Your task to perform on an android device: turn on translation in the chrome app Image 0: 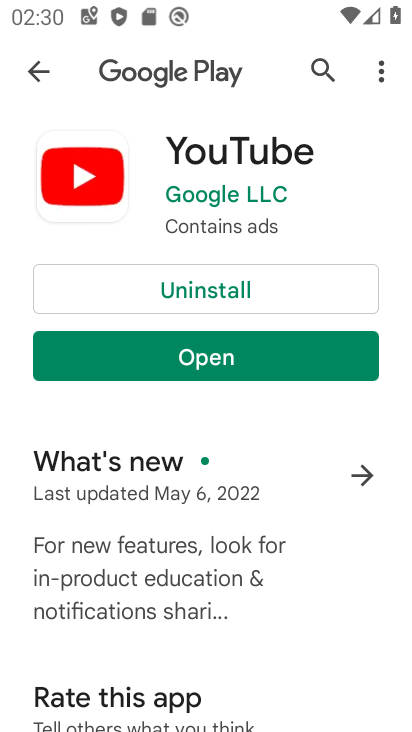
Step 0: press back button
Your task to perform on an android device: turn on translation in the chrome app Image 1: 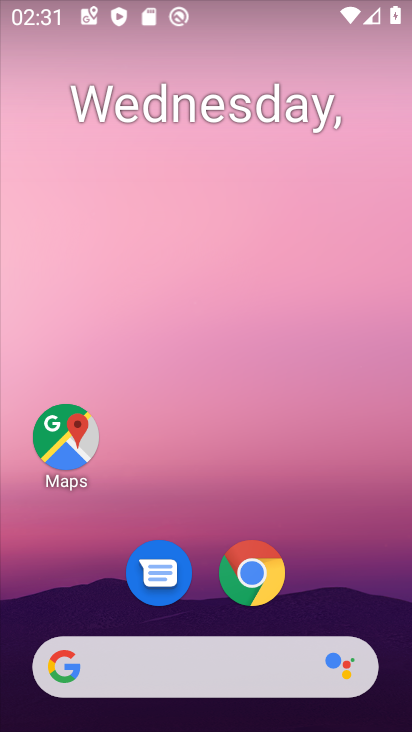
Step 1: click (249, 574)
Your task to perform on an android device: turn on translation in the chrome app Image 2: 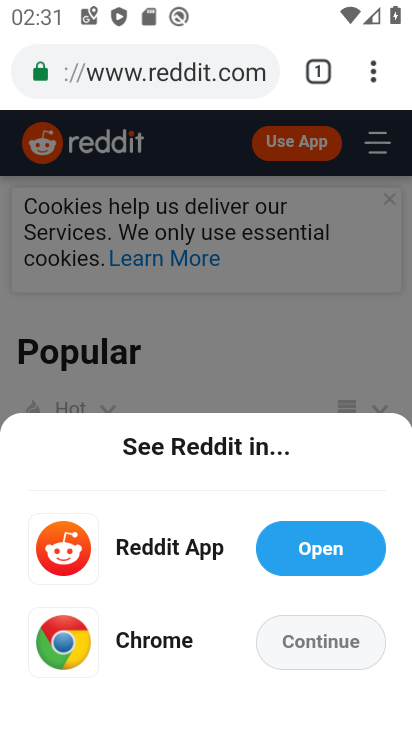
Step 2: click (372, 75)
Your task to perform on an android device: turn on translation in the chrome app Image 3: 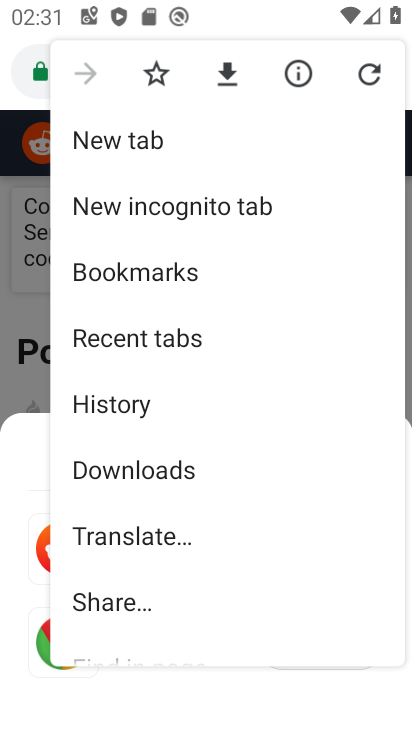
Step 3: drag from (179, 510) to (218, 329)
Your task to perform on an android device: turn on translation in the chrome app Image 4: 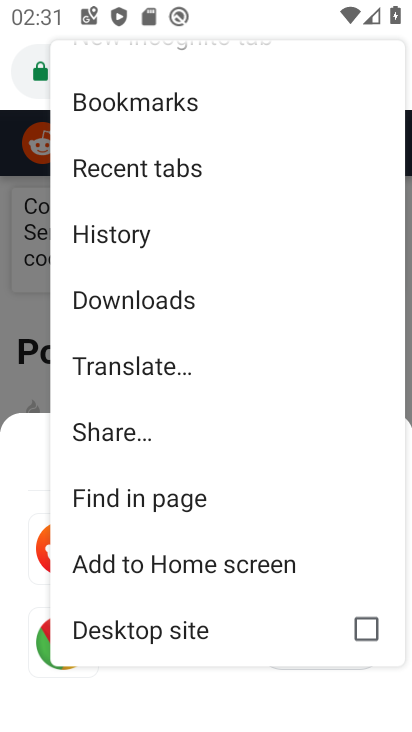
Step 4: drag from (185, 522) to (266, 383)
Your task to perform on an android device: turn on translation in the chrome app Image 5: 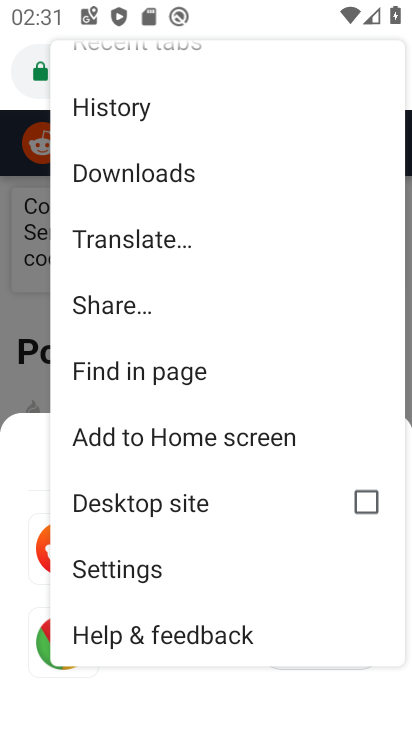
Step 5: click (130, 568)
Your task to perform on an android device: turn on translation in the chrome app Image 6: 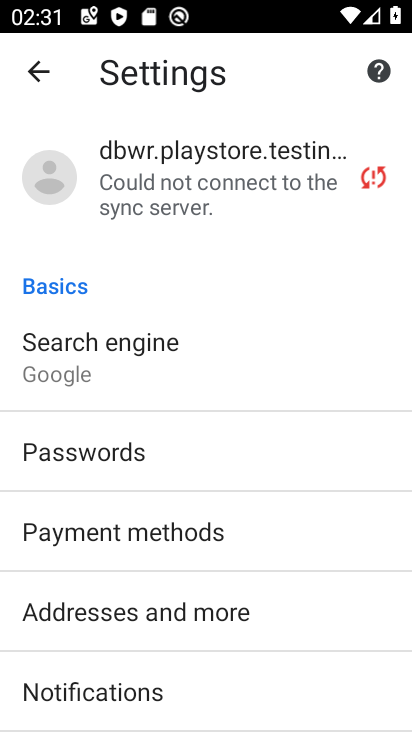
Step 6: drag from (188, 450) to (210, 318)
Your task to perform on an android device: turn on translation in the chrome app Image 7: 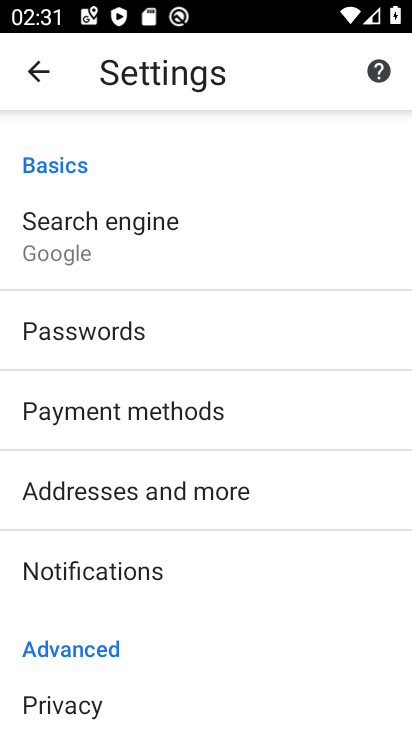
Step 7: drag from (180, 486) to (240, 327)
Your task to perform on an android device: turn on translation in the chrome app Image 8: 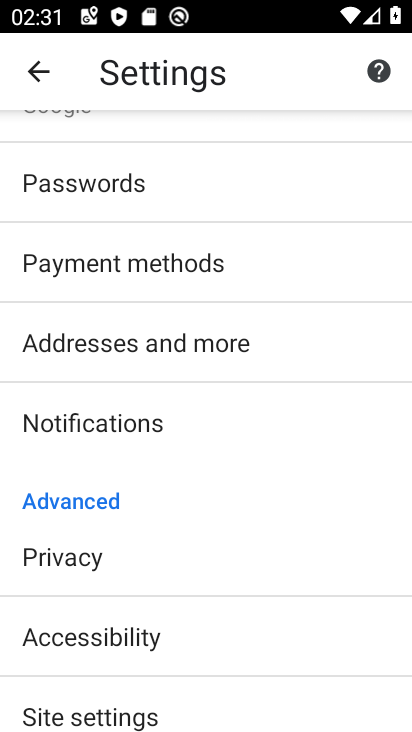
Step 8: drag from (183, 524) to (223, 377)
Your task to perform on an android device: turn on translation in the chrome app Image 9: 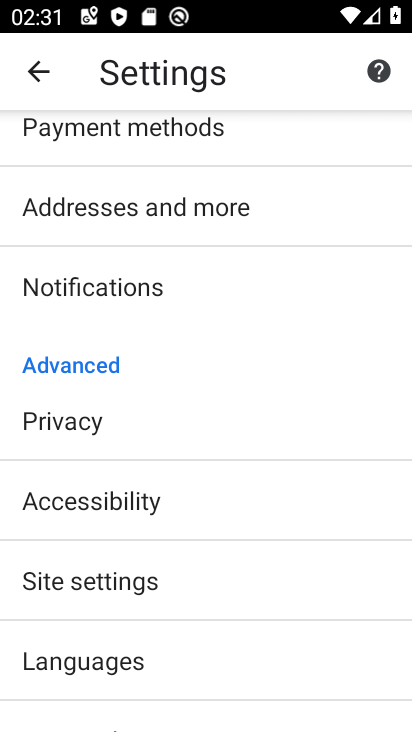
Step 9: click (103, 657)
Your task to perform on an android device: turn on translation in the chrome app Image 10: 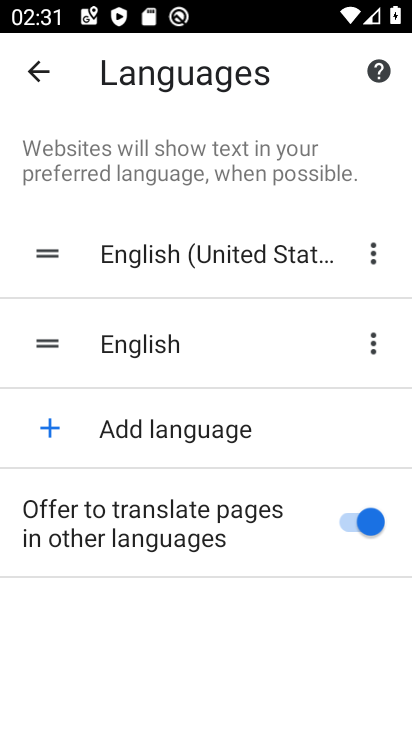
Step 10: task complete